Your task to perform on an android device: Open settings on Google Maps Image 0: 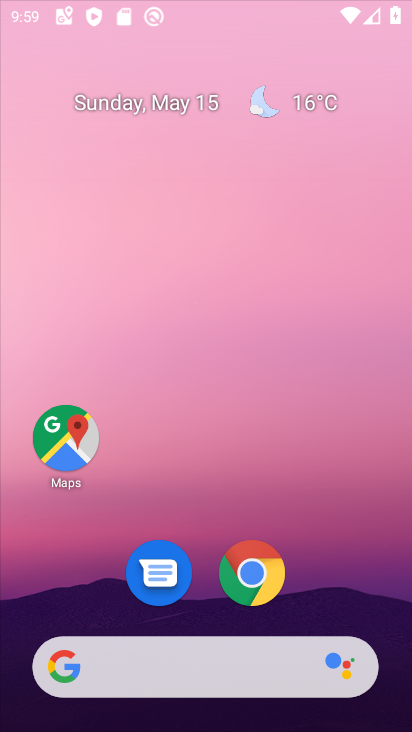
Step 0: press home button
Your task to perform on an android device: Open settings on Google Maps Image 1: 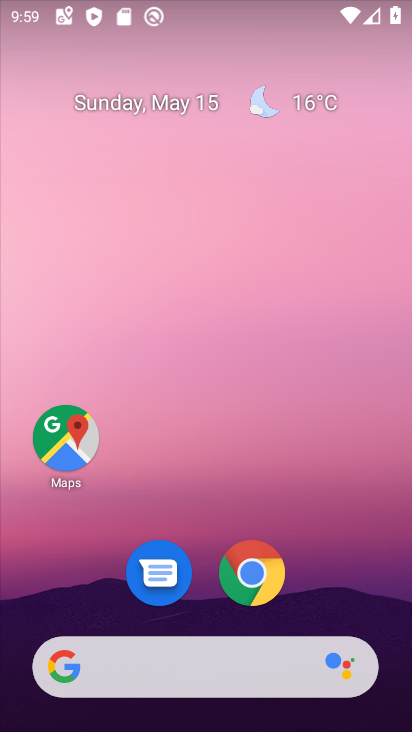
Step 1: click (256, 587)
Your task to perform on an android device: Open settings on Google Maps Image 2: 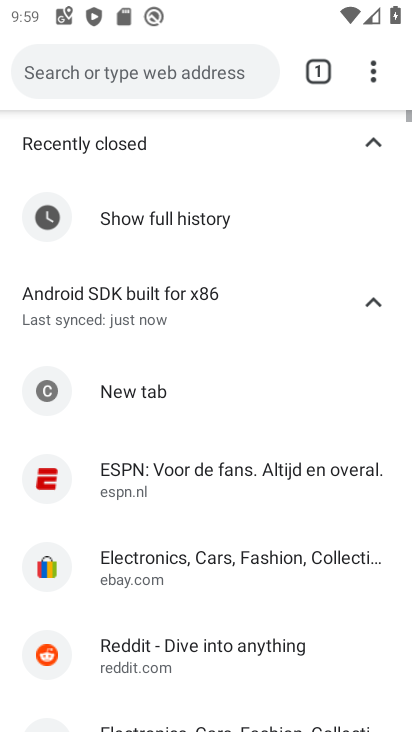
Step 2: drag from (380, 65) to (141, 604)
Your task to perform on an android device: Open settings on Google Maps Image 3: 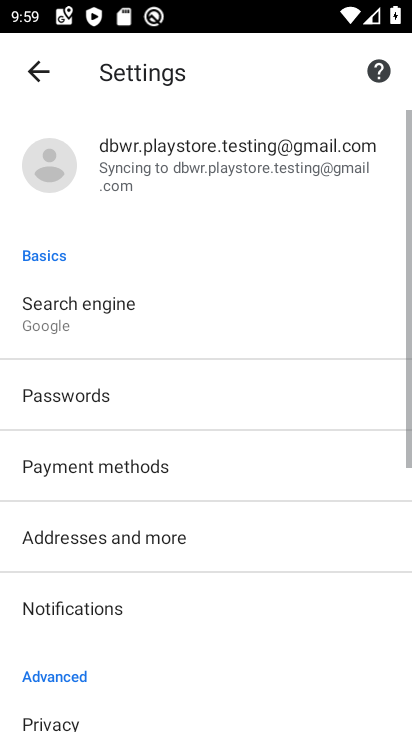
Step 3: click (173, 190)
Your task to perform on an android device: Open settings on Google Maps Image 4: 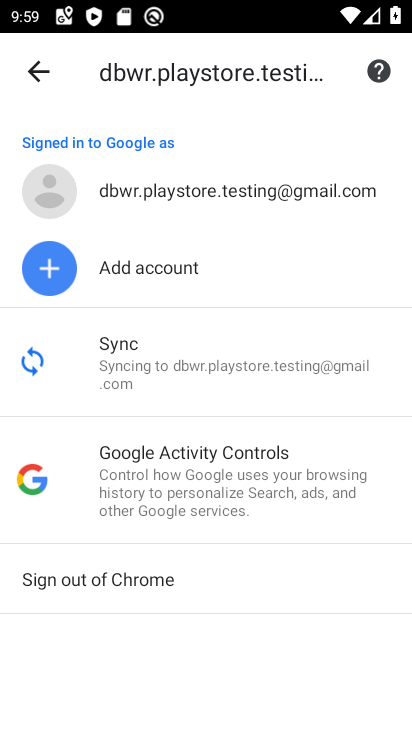
Step 4: click (70, 352)
Your task to perform on an android device: Open settings on Google Maps Image 5: 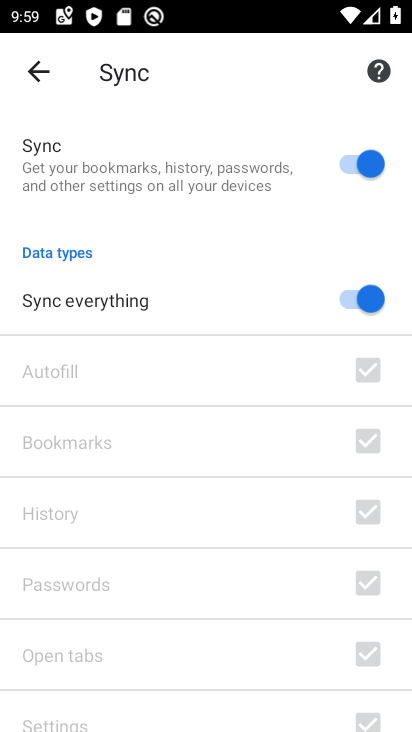
Step 5: task complete